Your task to perform on an android device: Open Chrome and go to the settings page Image 0: 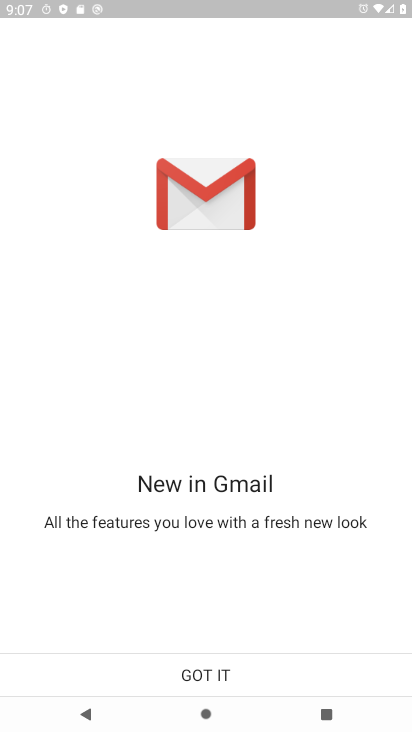
Step 0: press home button
Your task to perform on an android device: Open Chrome and go to the settings page Image 1: 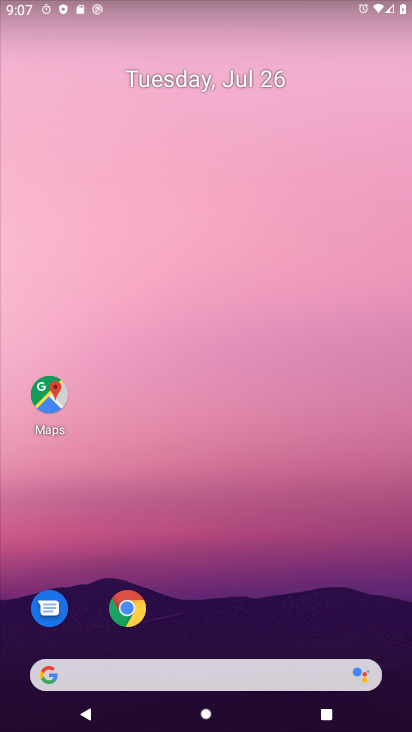
Step 1: click (122, 606)
Your task to perform on an android device: Open Chrome and go to the settings page Image 2: 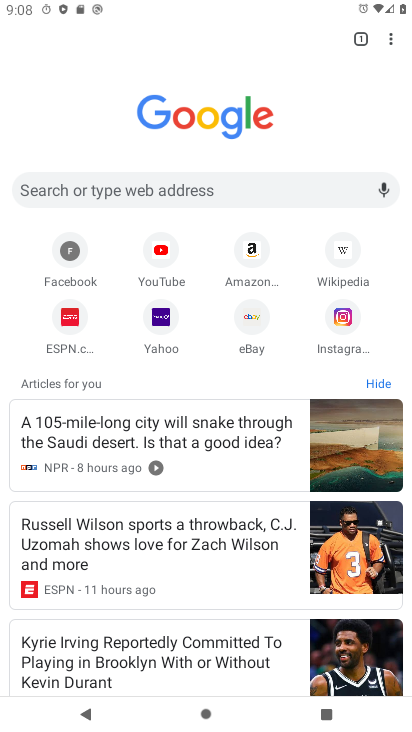
Step 2: click (387, 33)
Your task to perform on an android device: Open Chrome and go to the settings page Image 3: 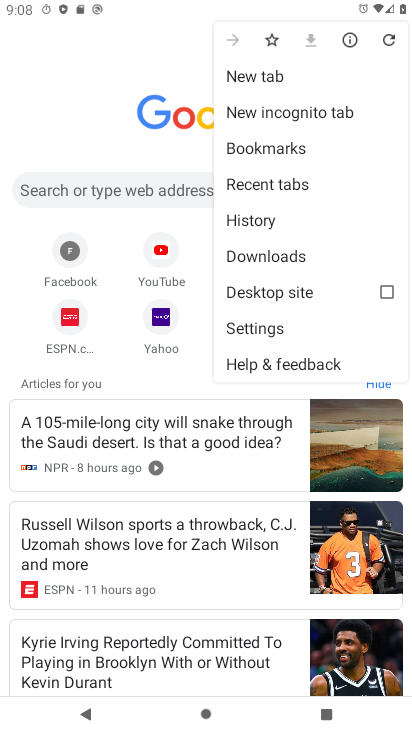
Step 3: click (282, 321)
Your task to perform on an android device: Open Chrome and go to the settings page Image 4: 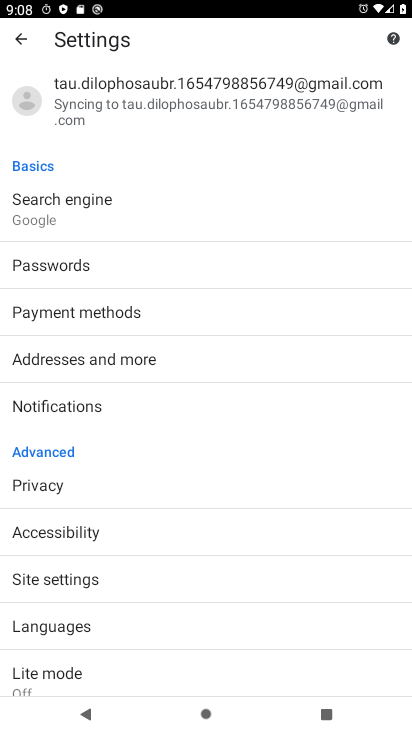
Step 4: task complete